Your task to perform on an android device: Open Google Maps Image 0: 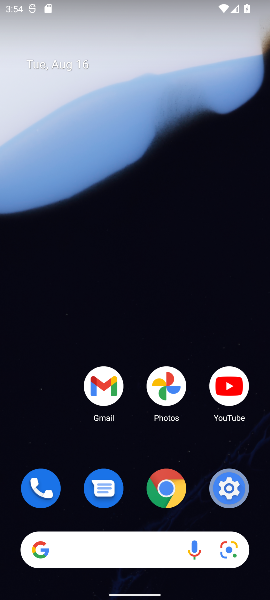
Step 0: drag from (36, 379) to (55, 21)
Your task to perform on an android device: Open Google Maps Image 1: 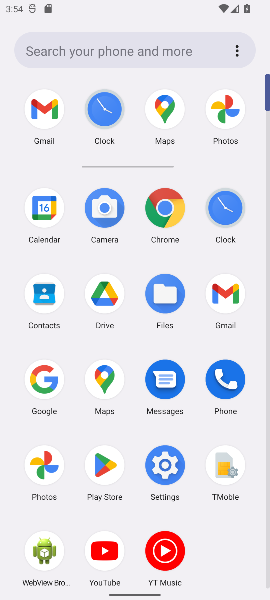
Step 1: click (103, 384)
Your task to perform on an android device: Open Google Maps Image 2: 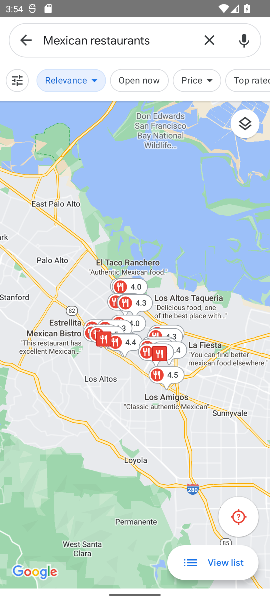
Step 2: task complete